Your task to perform on an android device: Open wifi settings Image 0: 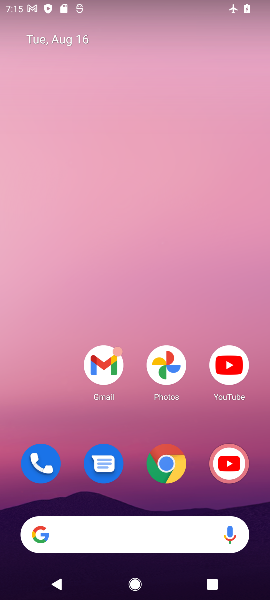
Step 0: click (145, 22)
Your task to perform on an android device: Open wifi settings Image 1: 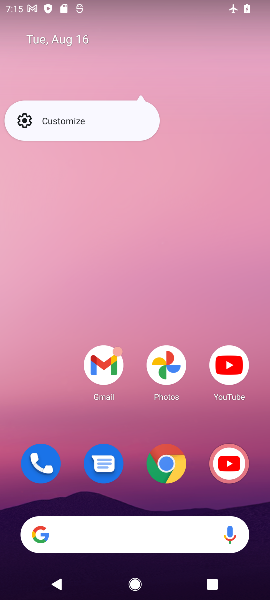
Step 1: drag from (129, 436) to (192, 10)
Your task to perform on an android device: Open wifi settings Image 2: 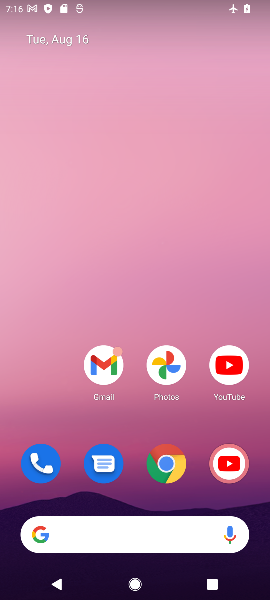
Step 2: drag from (121, 485) to (171, 0)
Your task to perform on an android device: Open wifi settings Image 3: 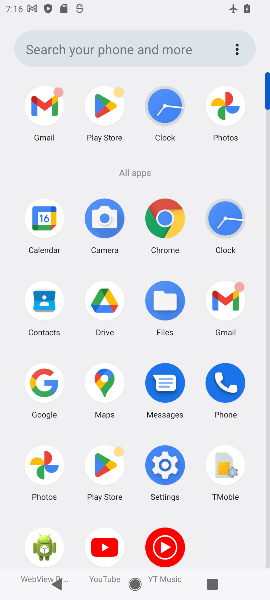
Step 3: click (164, 471)
Your task to perform on an android device: Open wifi settings Image 4: 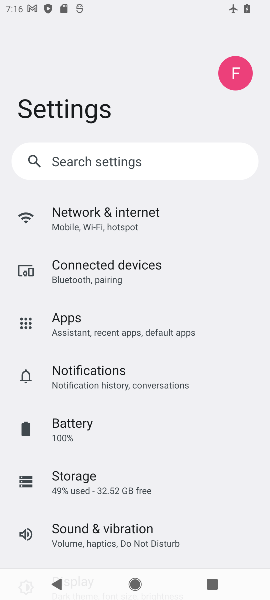
Step 4: click (116, 224)
Your task to perform on an android device: Open wifi settings Image 5: 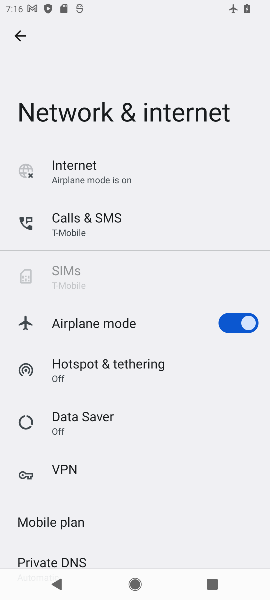
Step 5: drag from (119, 406) to (130, 305)
Your task to perform on an android device: Open wifi settings Image 6: 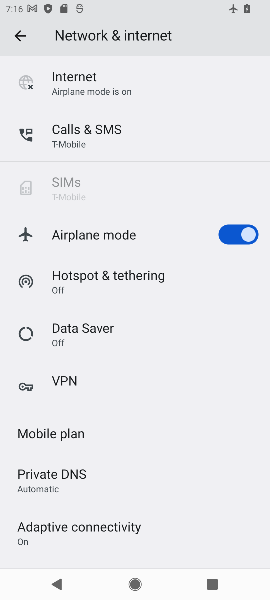
Step 6: drag from (118, 398) to (122, 241)
Your task to perform on an android device: Open wifi settings Image 7: 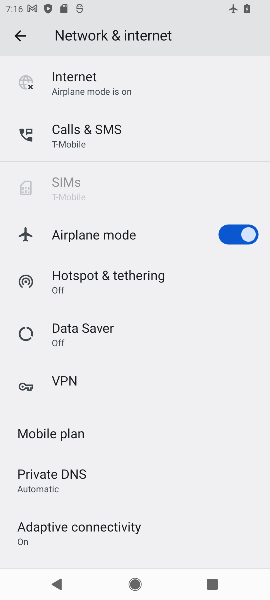
Step 7: click (78, 79)
Your task to perform on an android device: Open wifi settings Image 8: 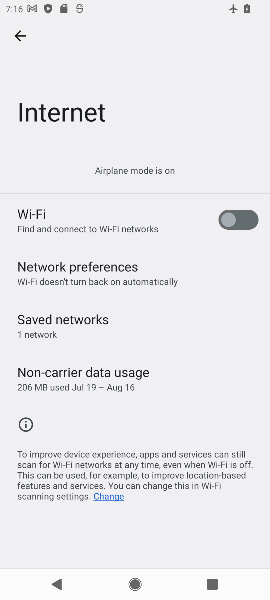
Step 8: click (68, 224)
Your task to perform on an android device: Open wifi settings Image 9: 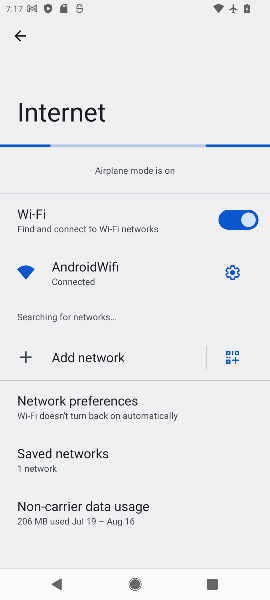
Step 9: task complete